Your task to perform on an android device: Open display settings Image 0: 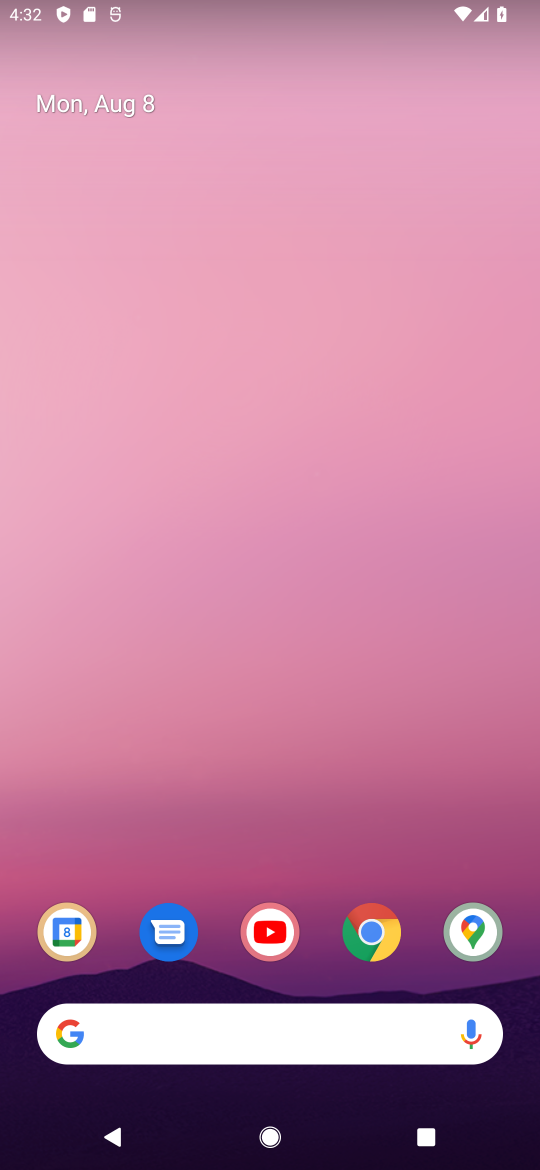
Step 0: drag from (164, 1063) to (473, 147)
Your task to perform on an android device: Open display settings Image 1: 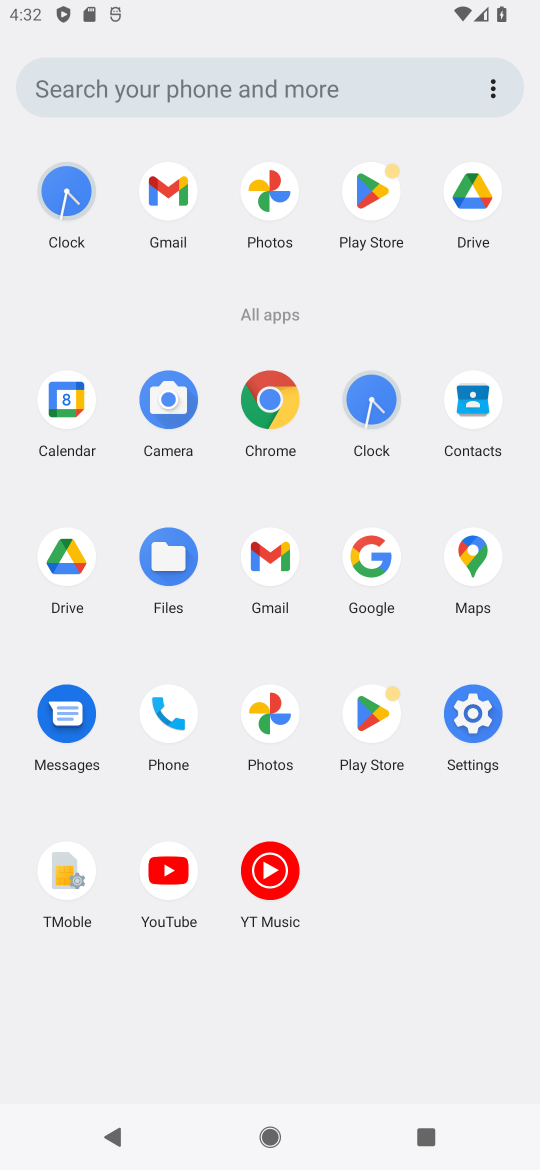
Step 1: click (485, 707)
Your task to perform on an android device: Open display settings Image 2: 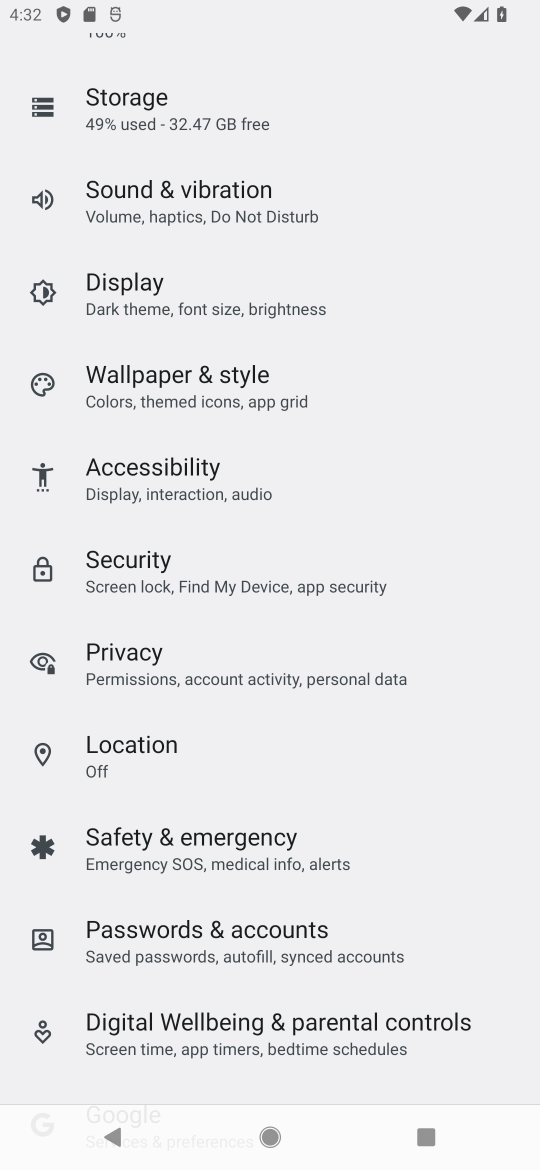
Step 2: click (219, 285)
Your task to perform on an android device: Open display settings Image 3: 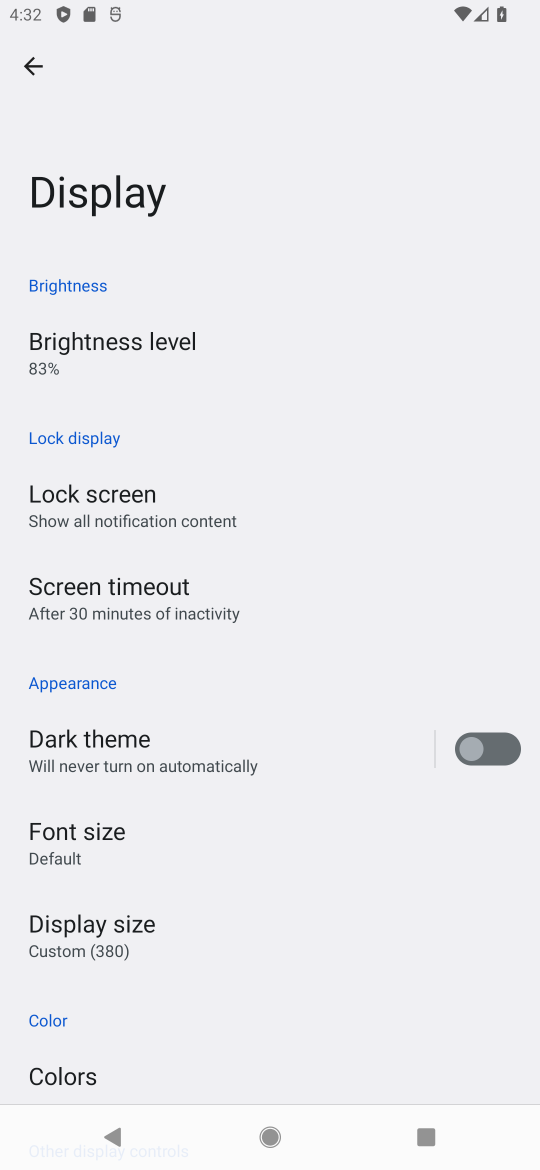
Step 3: task complete